Your task to perform on an android device: Show me popular games on the Play Store Image 0: 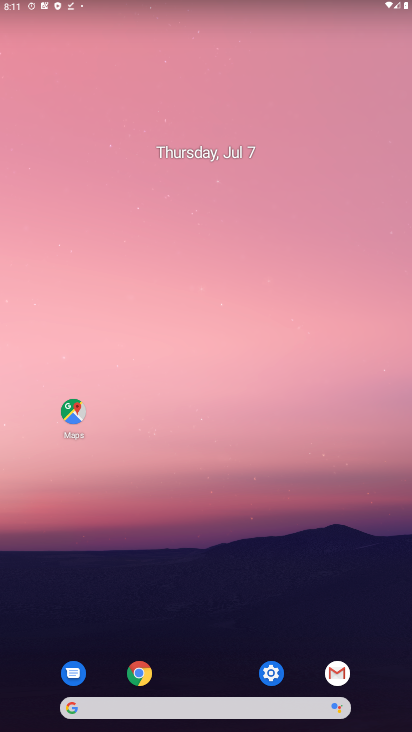
Step 0: drag from (210, 720) to (181, 142)
Your task to perform on an android device: Show me popular games on the Play Store Image 1: 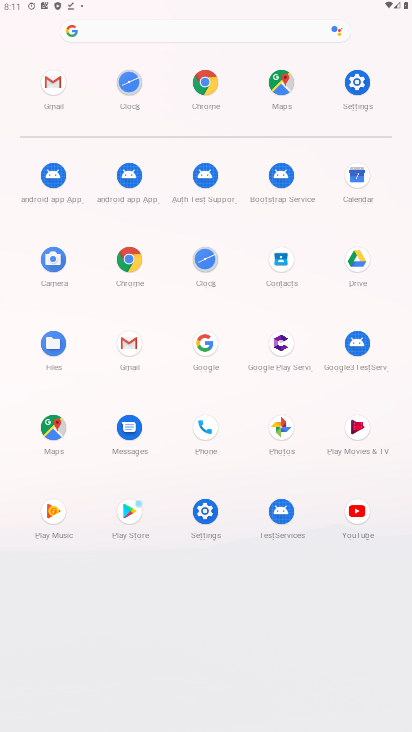
Step 1: click (139, 518)
Your task to perform on an android device: Show me popular games on the Play Store Image 2: 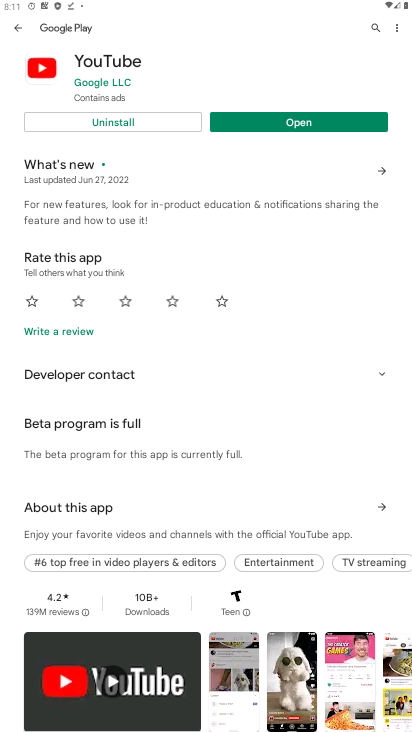
Step 2: click (371, 24)
Your task to perform on an android device: Show me popular games on the Play Store Image 3: 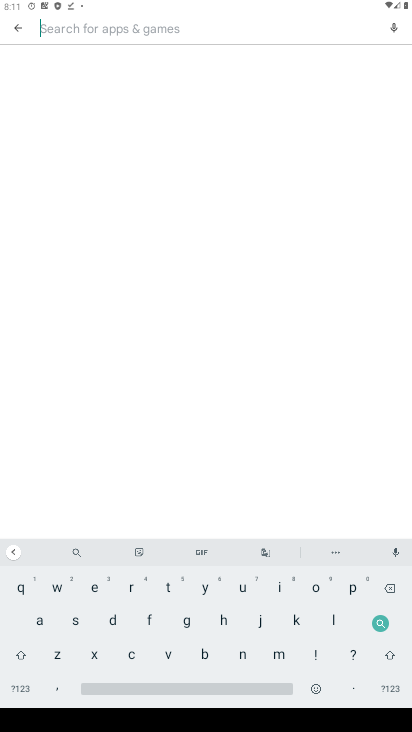
Step 3: click (351, 594)
Your task to perform on an android device: Show me popular games on the Play Store Image 4: 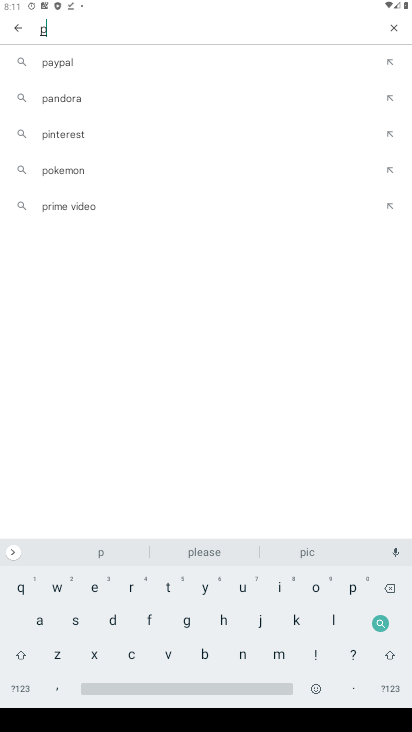
Step 4: click (320, 588)
Your task to perform on an android device: Show me popular games on the Play Store Image 5: 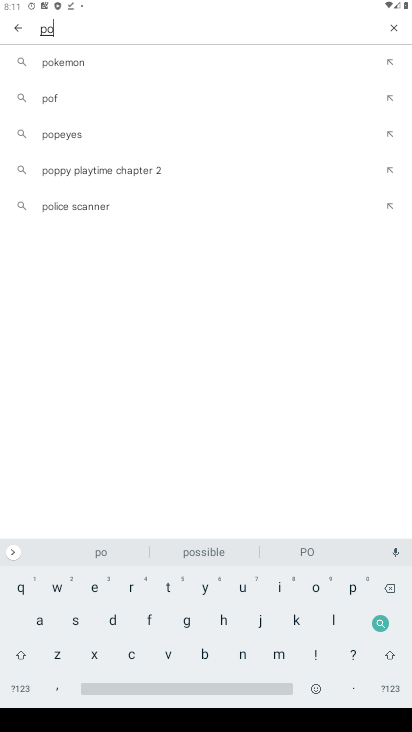
Step 5: click (353, 589)
Your task to perform on an android device: Show me popular games on the Play Store Image 6: 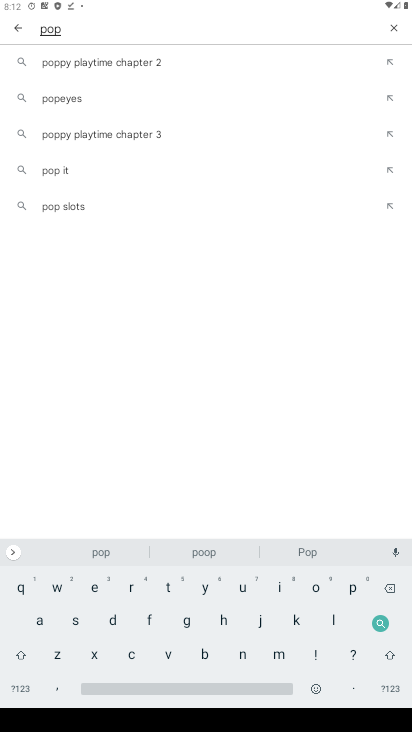
Step 6: click (241, 583)
Your task to perform on an android device: Show me popular games on the Play Store Image 7: 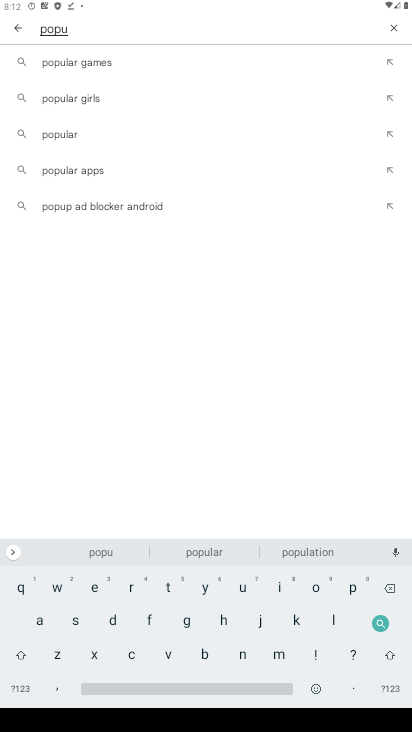
Step 7: click (138, 60)
Your task to perform on an android device: Show me popular games on the Play Store Image 8: 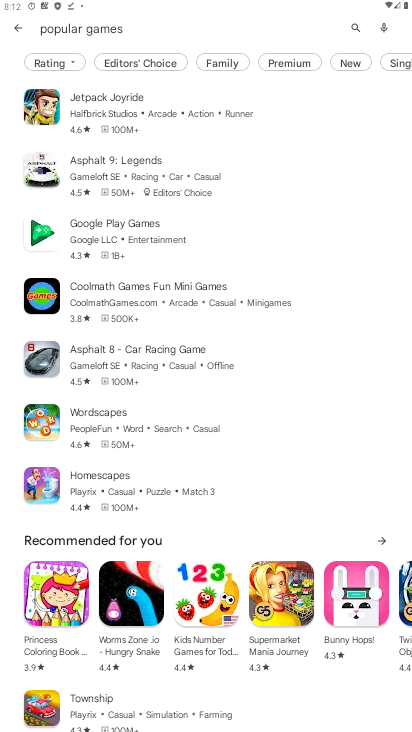
Step 8: task complete